Your task to perform on an android device: Search for "beats solo 3" on ebay.com, select the first entry, and add it to the cart. Image 0: 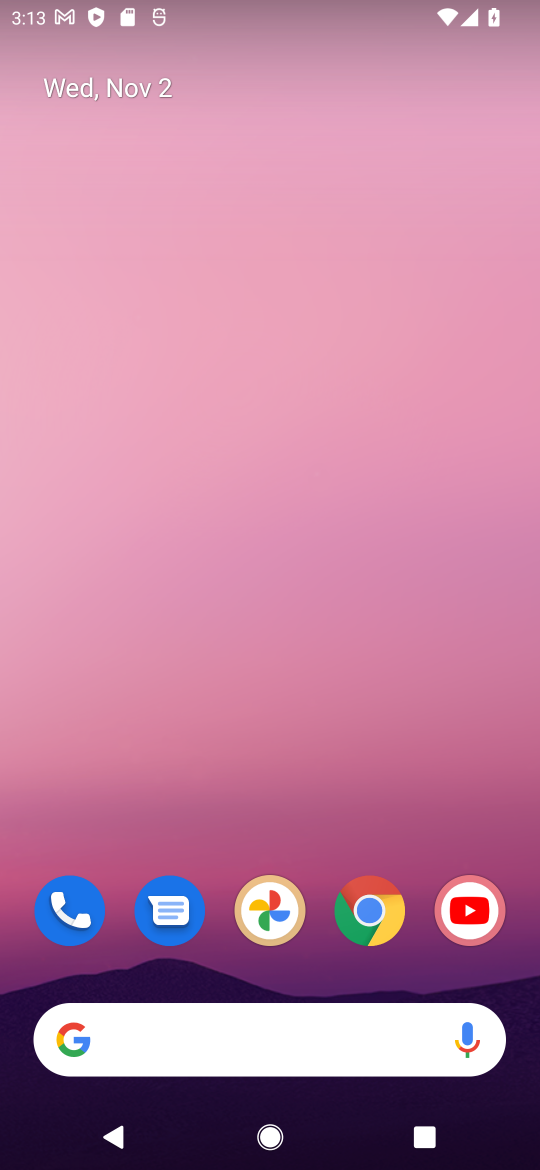
Step 0: click (380, 916)
Your task to perform on an android device: Search for "beats solo 3" on ebay.com, select the first entry, and add it to the cart. Image 1: 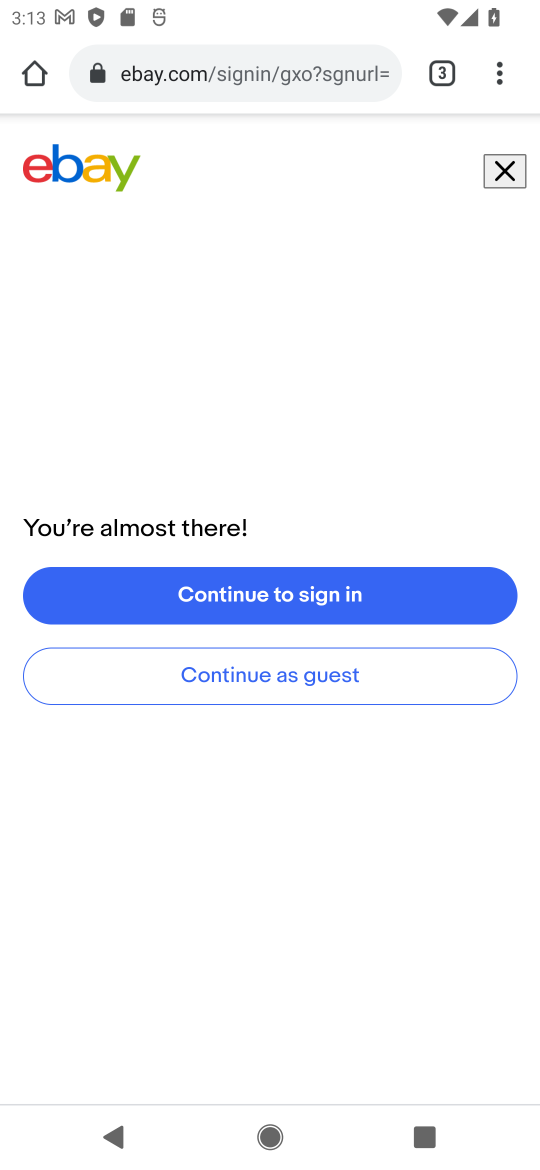
Step 1: click (504, 165)
Your task to perform on an android device: Search for "beats solo 3" on ebay.com, select the first entry, and add it to the cart. Image 2: 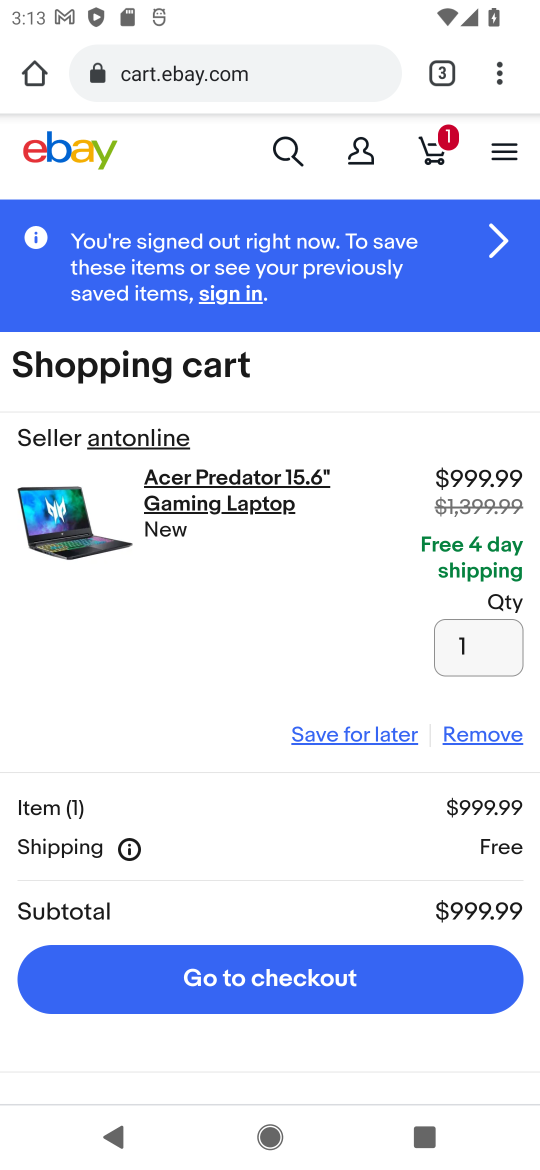
Step 2: click (282, 160)
Your task to perform on an android device: Search for "beats solo 3" on ebay.com, select the first entry, and add it to the cart. Image 3: 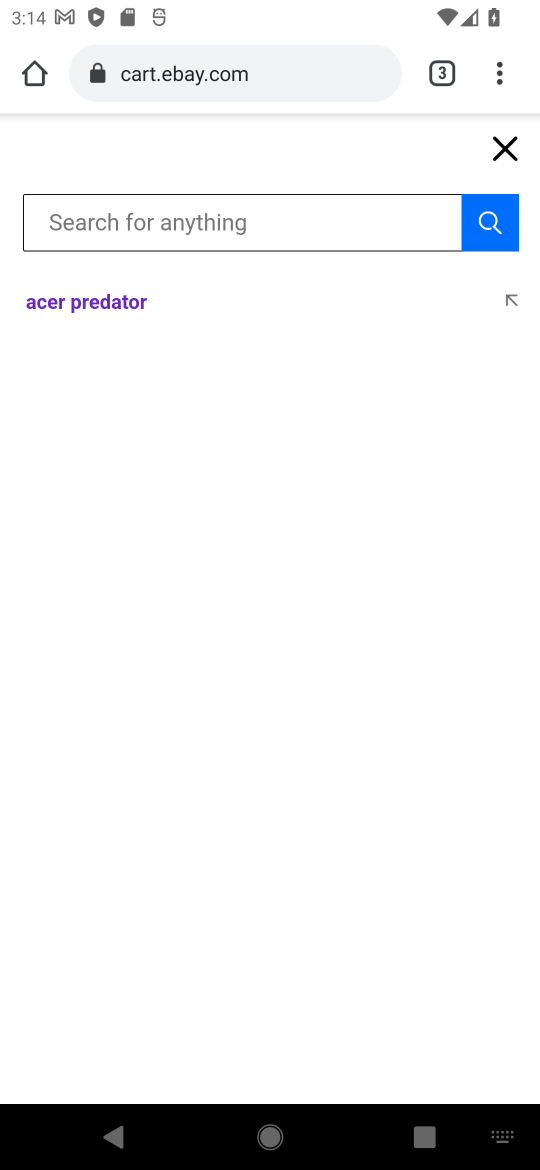
Step 3: type "beats solo 3"
Your task to perform on an android device: Search for "beats solo 3" on ebay.com, select the first entry, and add it to the cart. Image 4: 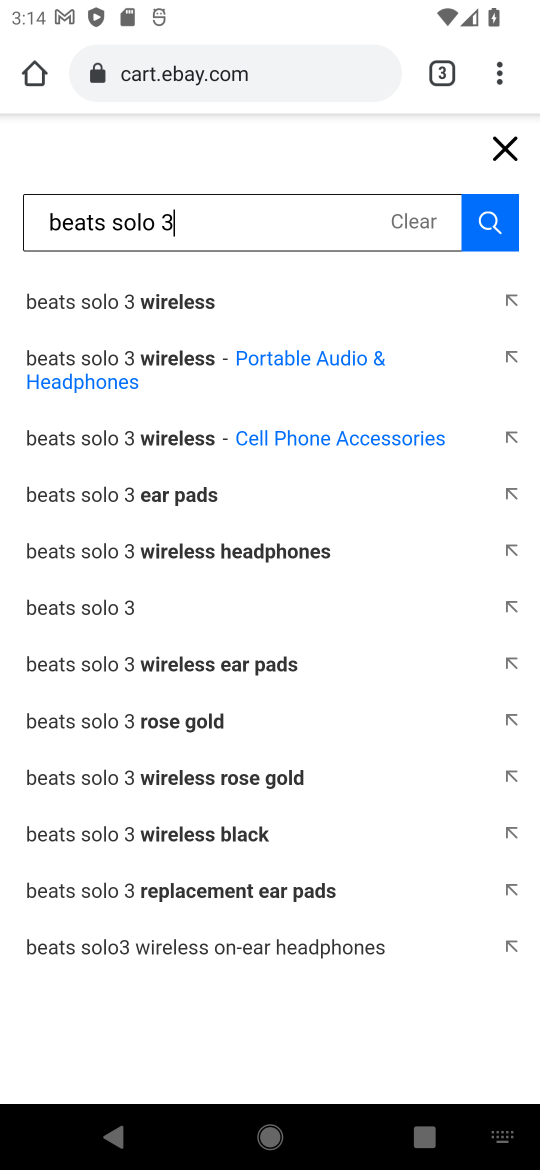
Step 4: click (149, 354)
Your task to perform on an android device: Search for "beats solo 3" on ebay.com, select the first entry, and add it to the cart. Image 5: 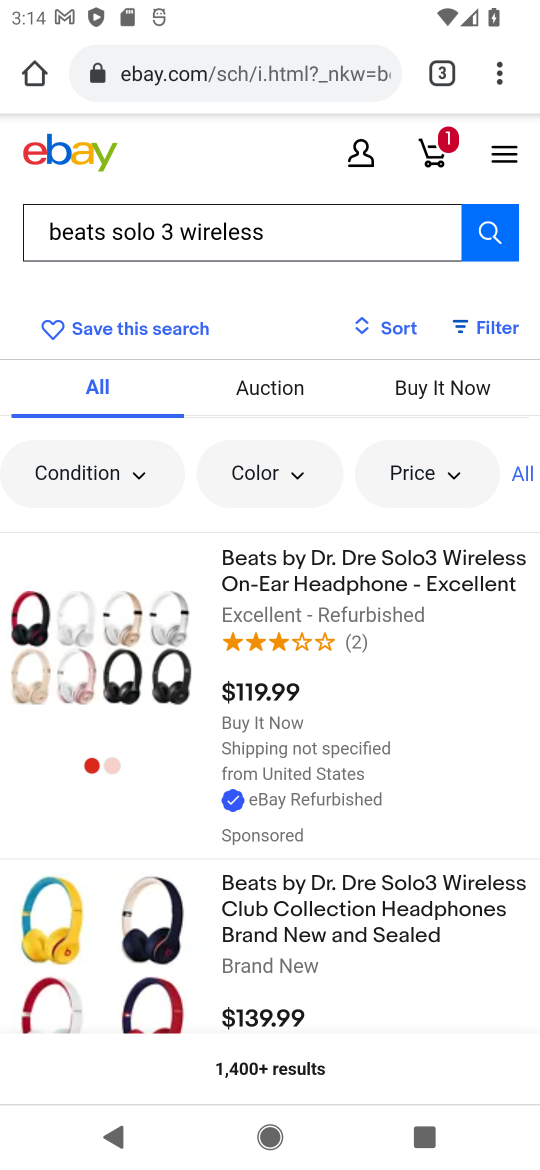
Step 5: click (287, 594)
Your task to perform on an android device: Search for "beats solo 3" on ebay.com, select the first entry, and add it to the cart. Image 6: 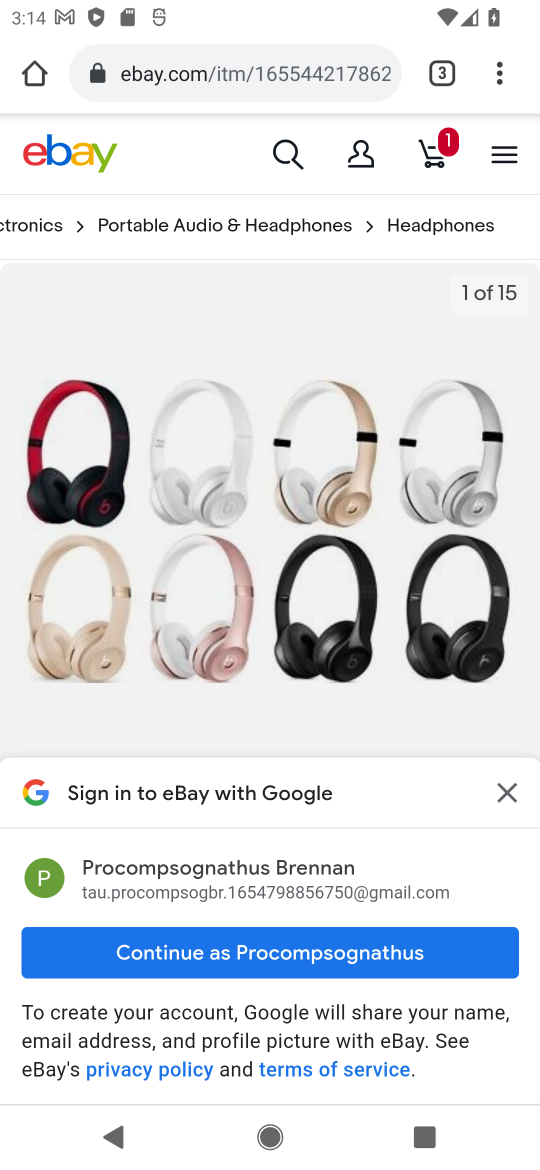
Step 6: click (329, 954)
Your task to perform on an android device: Search for "beats solo 3" on ebay.com, select the first entry, and add it to the cart. Image 7: 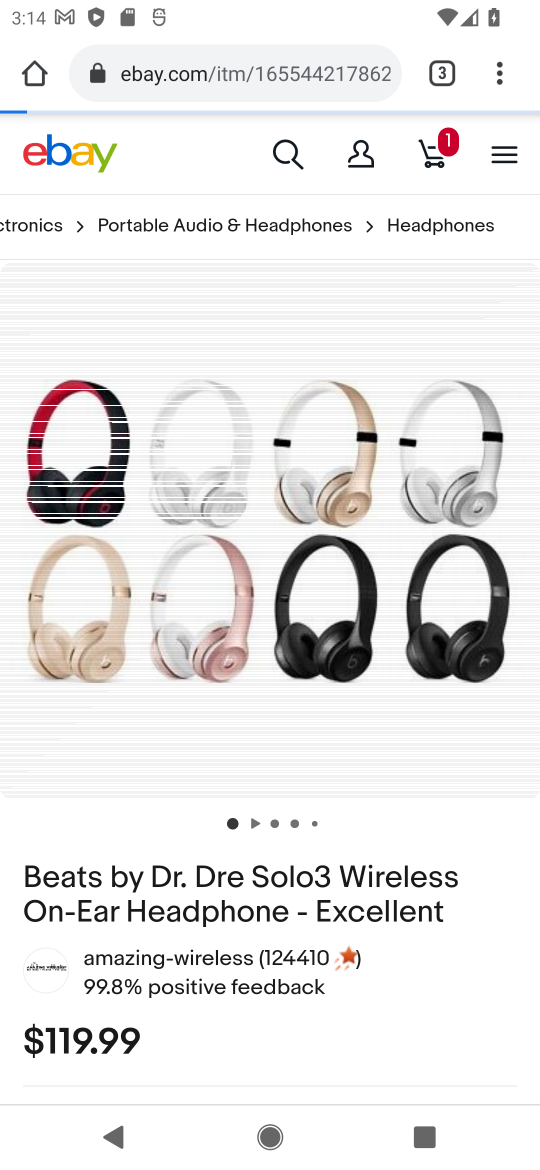
Step 7: drag from (303, 982) to (370, 464)
Your task to perform on an android device: Search for "beats solo 3" on ebay.com, select the first entry, and add it to the cart. Image 8: 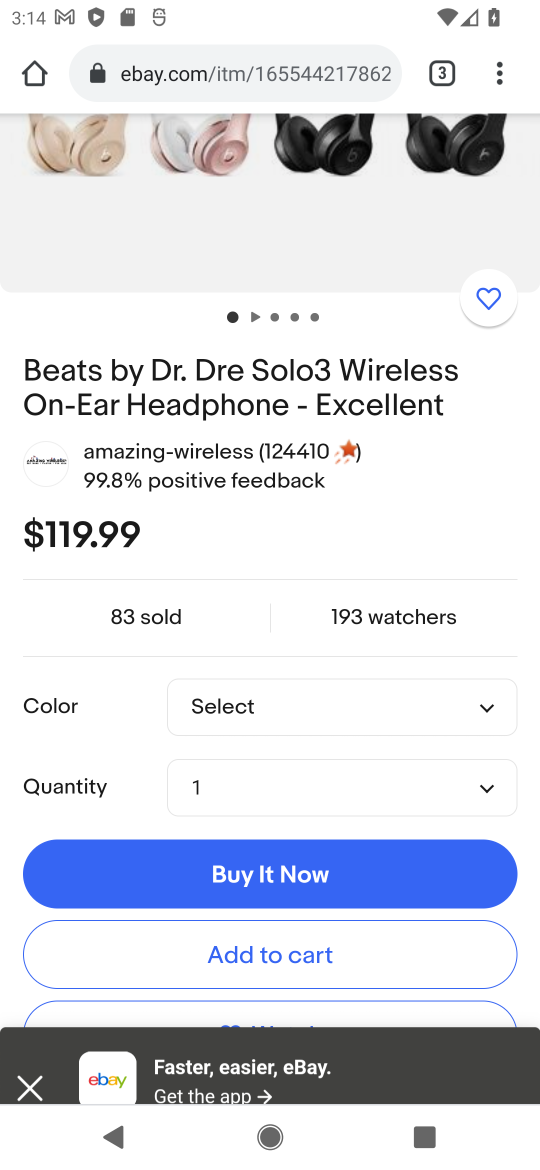
Step 8: click (316, 941)
Your task to perform on an android device: Search for "beats solo 3" on ebay.com, select the first entry, and add it to the cart. Image 9: 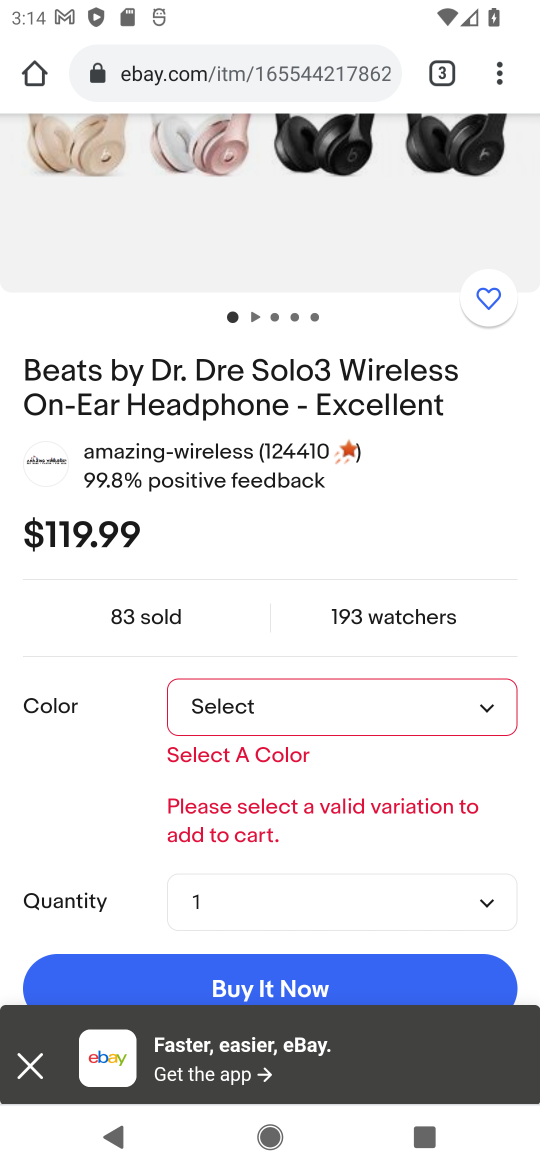
Step 9: click (492, 705)
Your task to perform on an android device: Search for "beats solo 3" on ebay.com, select the first entry, and add it to the cart. Image 10: 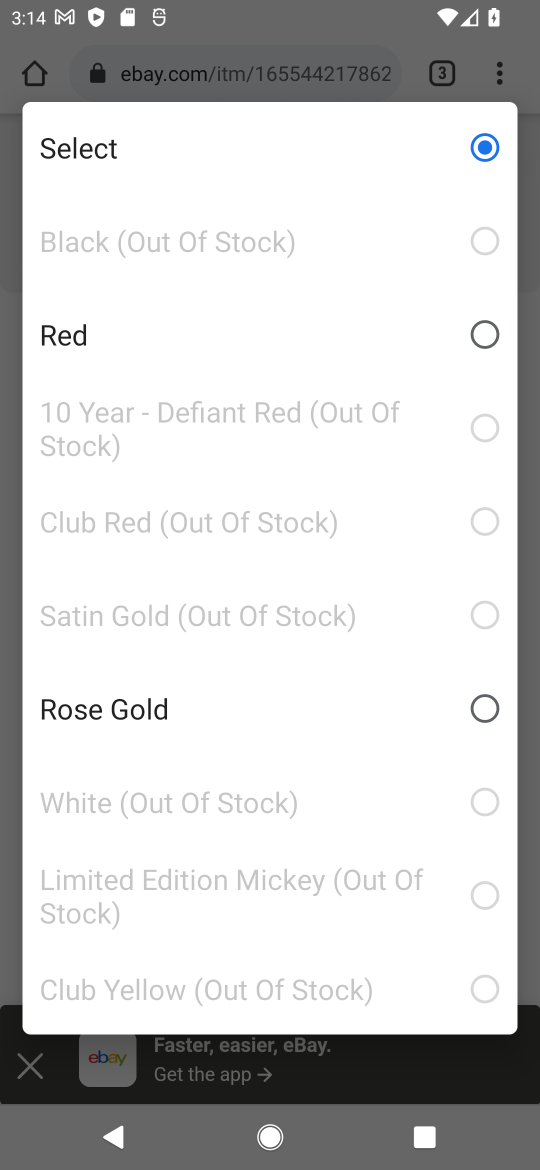
Step 10: click (482, 709)
Your task to perform on an android device: Search for "beats solo 3" on ebay.com, select the first entry, and add it to the cart. Image 11: 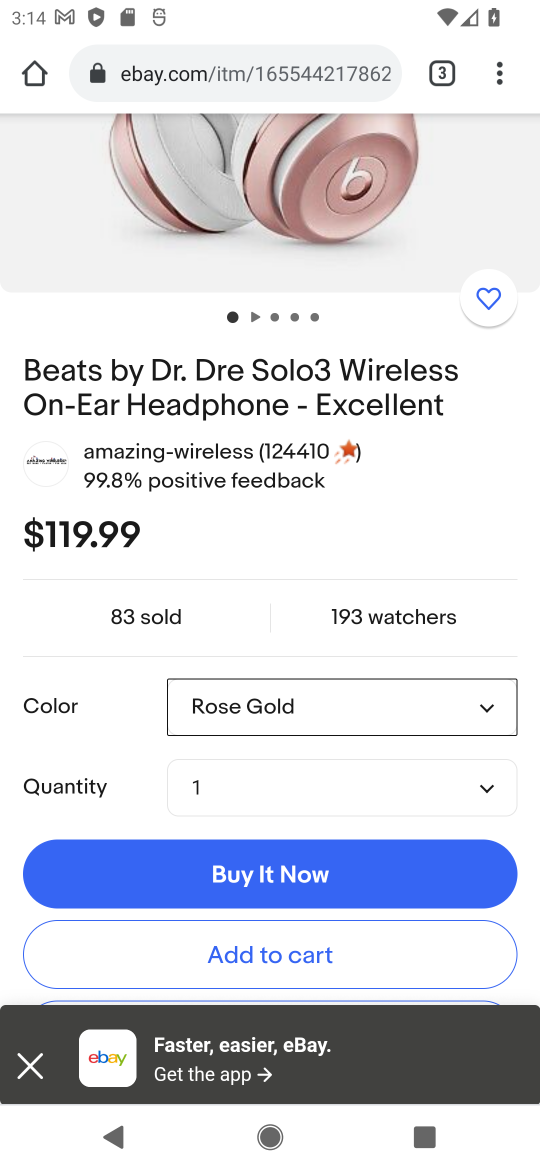
Step 11: click (314, 949)
Your task to perform on an android device: Search for "beats solo 3" on ebay.com, select the first entry, and add it to the cart. Image 12: 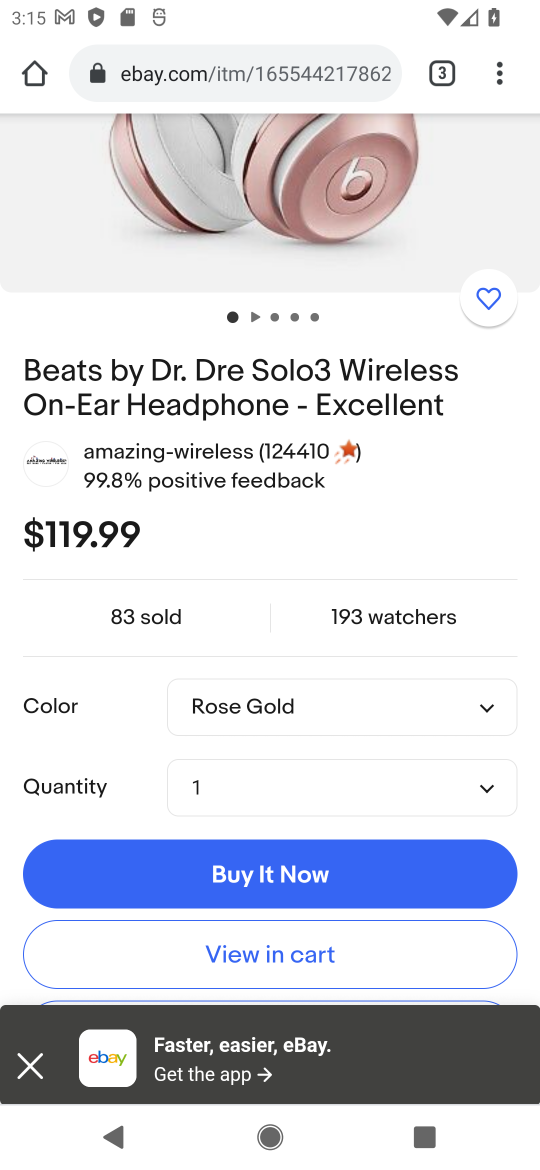
Step 12: task complete